Your task to perform on an android device: What's the weather today? Image 0: 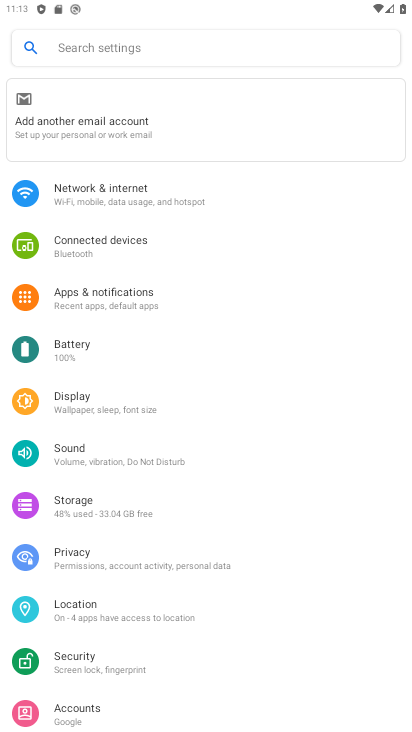
Step 0: press home button
Your task to perform on an android device: What's the weather today? Image 1: 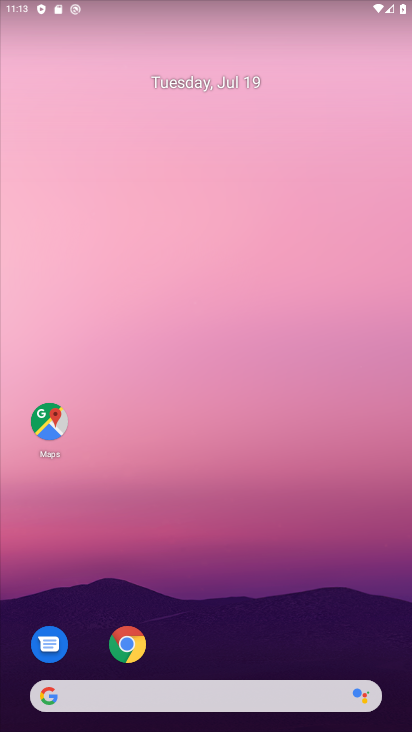
Step 1: click (112, 699)
Your task to perform on an android device: What's the weather today? Image 2: 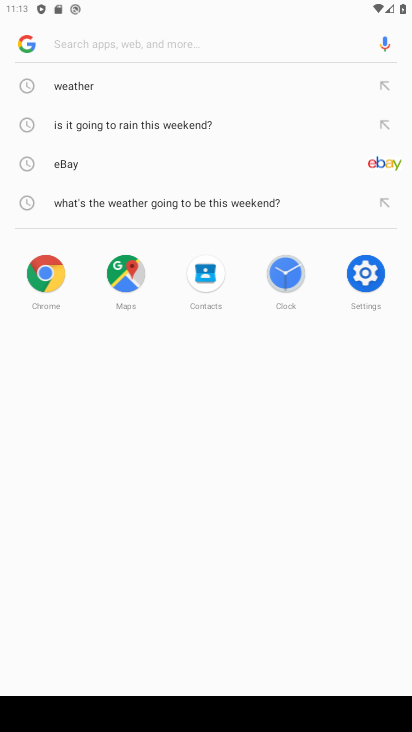
Step 2: drag from (112, 724) to (331, 509)
Your task to perform on an android device: What's the weather today? Image 3: 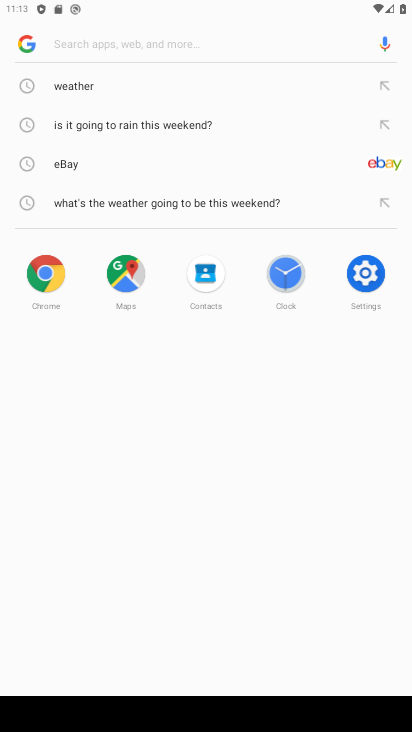
Step 3: type " What's the weather today?"
Your task to perform on an android device: What's the weather today? Image 4: 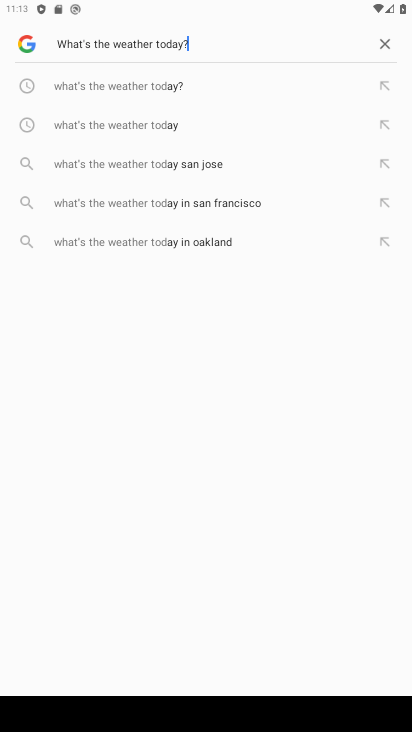
Step 4: type ""
Your task to perform on an android device: What's the weather today? Image 5: 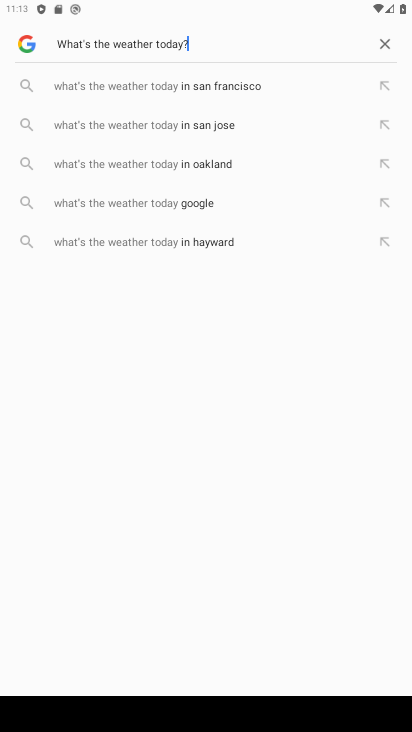
Step 5: type ""
Your task to perform on an android device: What's the weather today? Image 6: 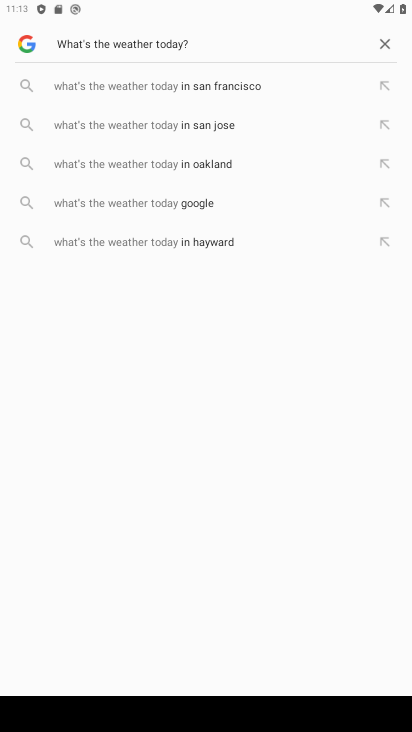
Step 6: type ""
Your task to perform on an android device: What's the weather today? Image 7: 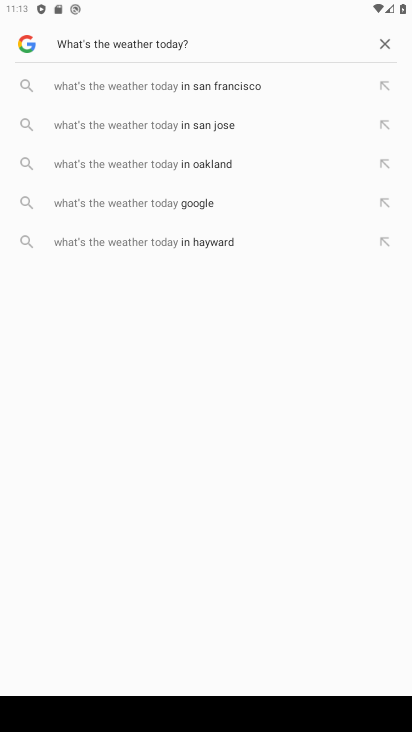
Step 7: task complete